Your task to perform on an android device: Open Reddit.com Image 0: 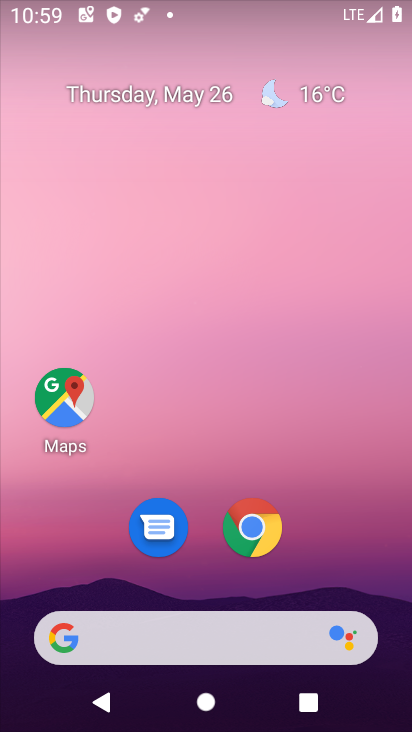
Step 0: click (243, 531)
Your task to perform on an android device: Open Reddit.com Image 1: 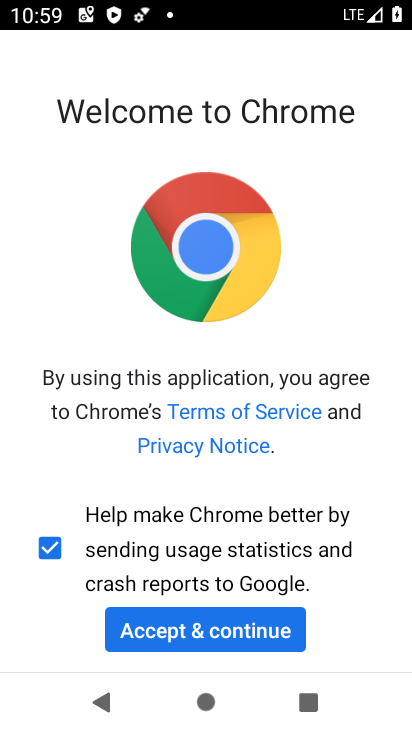
Step 1: click (204, 630)
Your task to perform on an android device: Open Reddit.com Image 2: 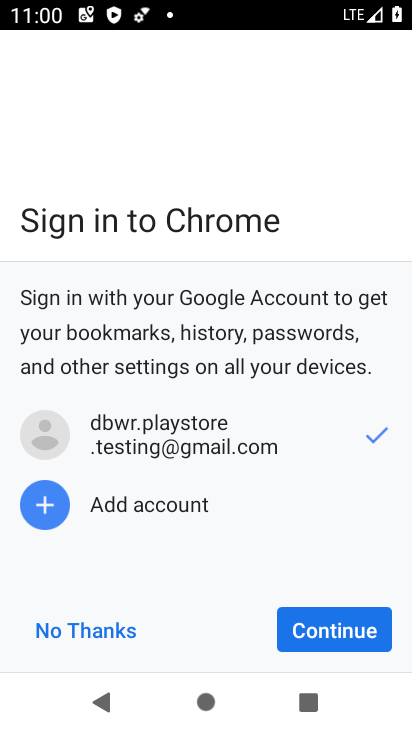
Step 2: click (307, 637)
Your task to perform on an android device: Open Reddit.com Image 3: 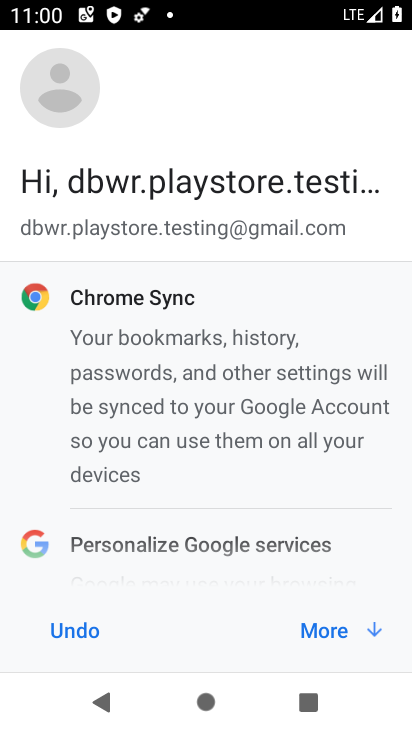
Step 3: click (308, 635)
Your task to perform on an android device: Open Reddit.com Image 4: 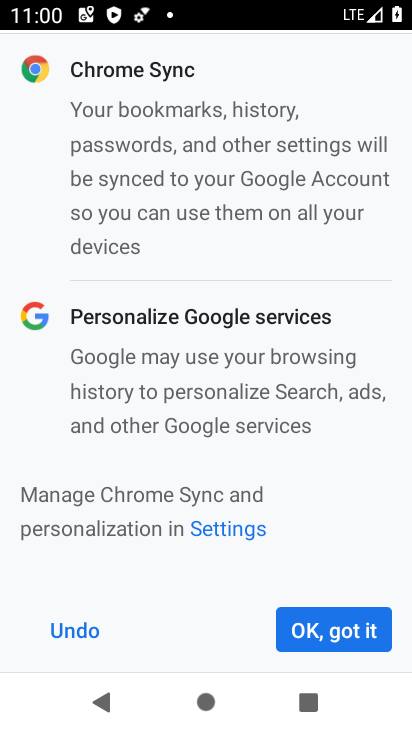
Step 4: click (308, 635)
Your task to perform on an android device: Open Reddit.com Image 5: 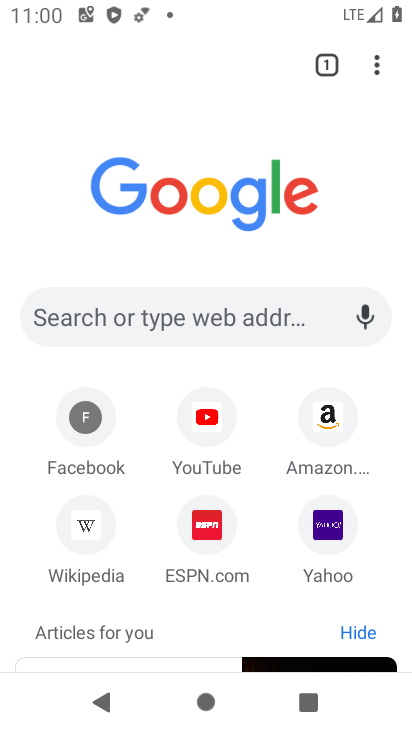
Step 5: click (201, 315)
Your task to perform on an android device: Open Reddit.com Image 6: 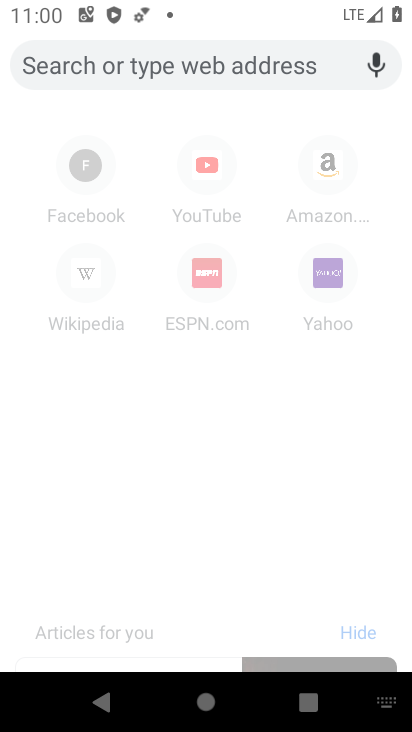
Step 6: type "Reddit.com"
Your task to perform on an android device: Open Reddit.com Image 7: 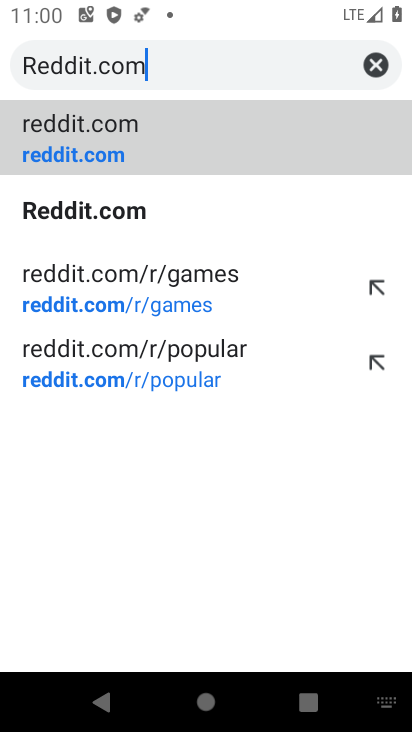
Step 7: click (39, 143)
Your task to perform on an android device: Open Reddit.com Image 8: 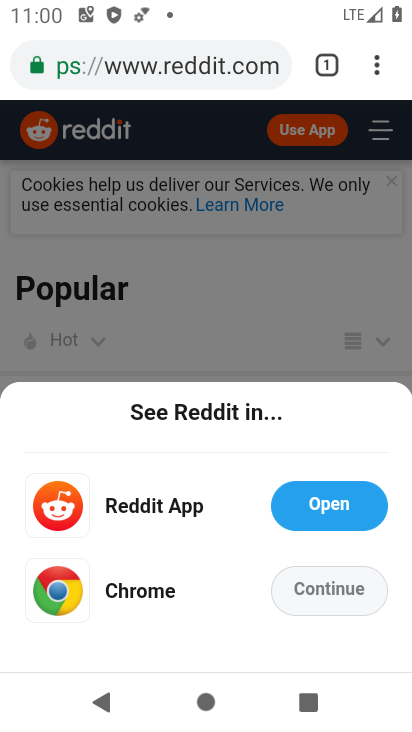
Step 8: task complete